Your task to perform on an android device: all mails in gmail Image 0: 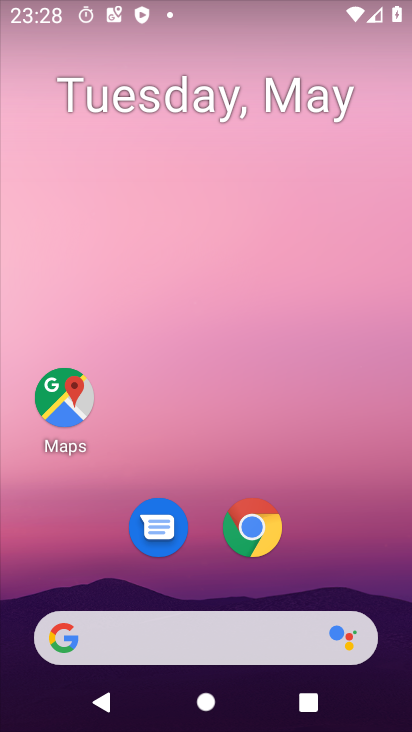
Step 0: drag from (176, 582) to (178, 83)
Your task to perform on an android device: all mails in gmail Image 1: 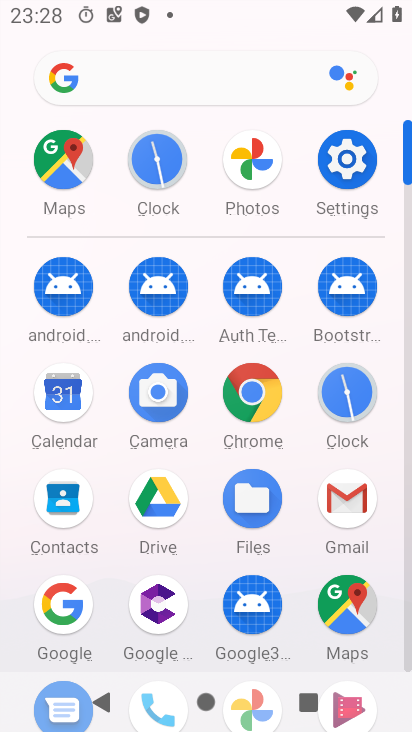
Step 1: click (333, 498)
Your task to perform on an android device: all mails in gmail Image 2: 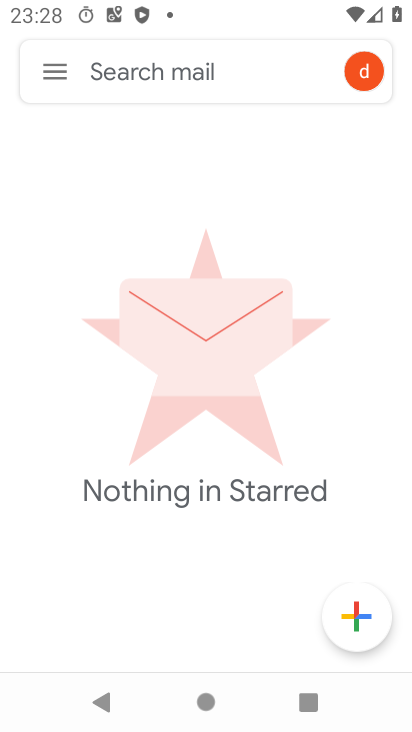
Step 2: click (54, 76)
Your task to perform on an android device: all mails in gmail Image 3: 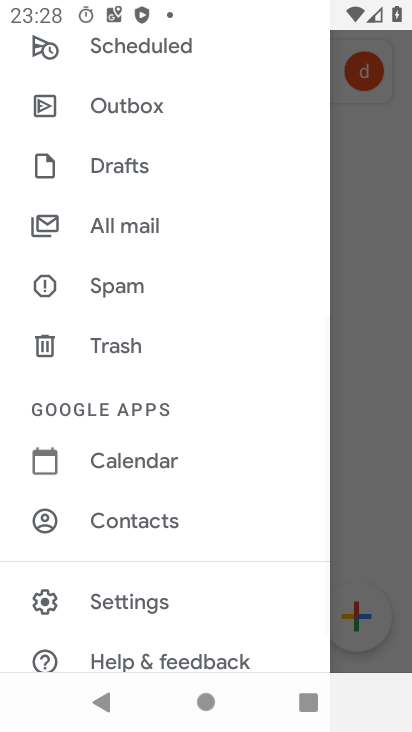
Step 3: click (130, 235)
Your task to perform on an android device: all mails in gmail Image 4: 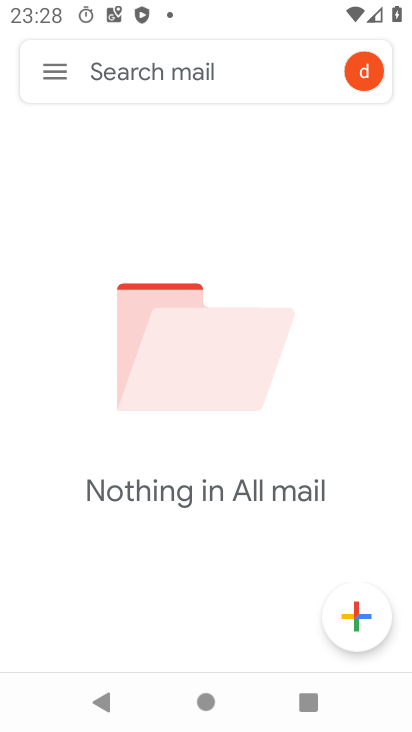
Step 4: task complete